Your task to perform on an android device: Open Chrome and go to settings Image 0: 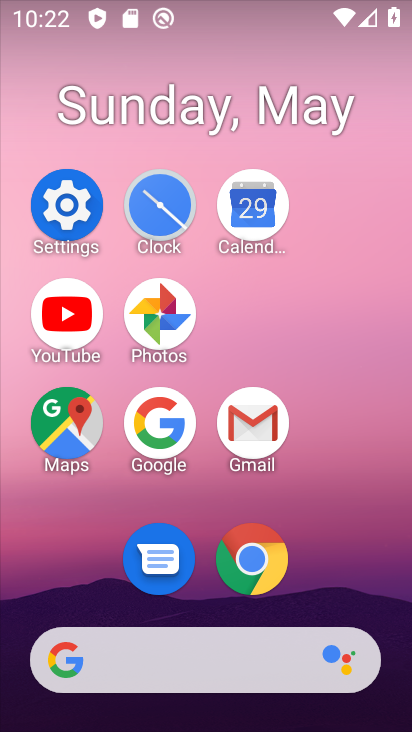
Step 0: click (250, 589)
Your task to perform on an android device: Open Chrome and go to settings Image 1: 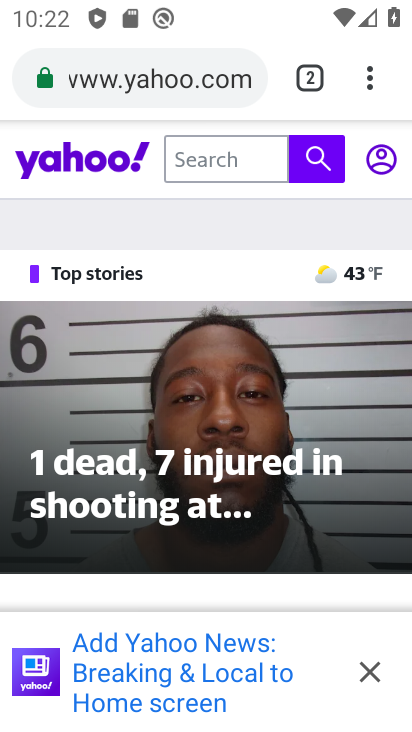
Step 1: click (379, 87)
Your task to perform on an android device: Open Chrome and go to settings Image 2: 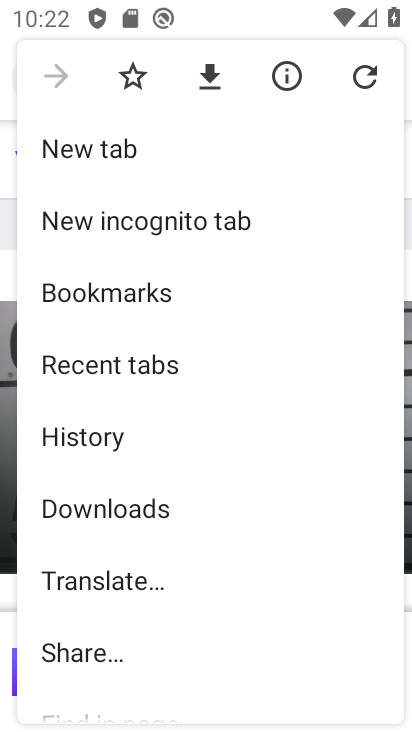
Step 2: drag from (82, 523) to (122, 160)
Your task to perform on an android device: Open Chrome and go to settings Image 3: 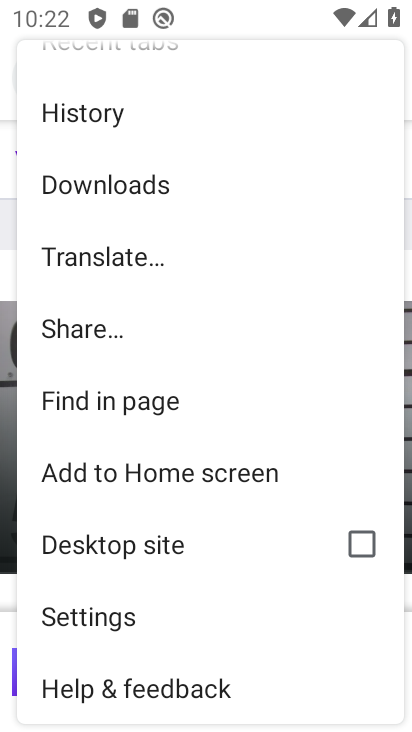
Step 3: click (113, 633)
Your task to perform on an android device: Open Chrome and go to settings Image 4: 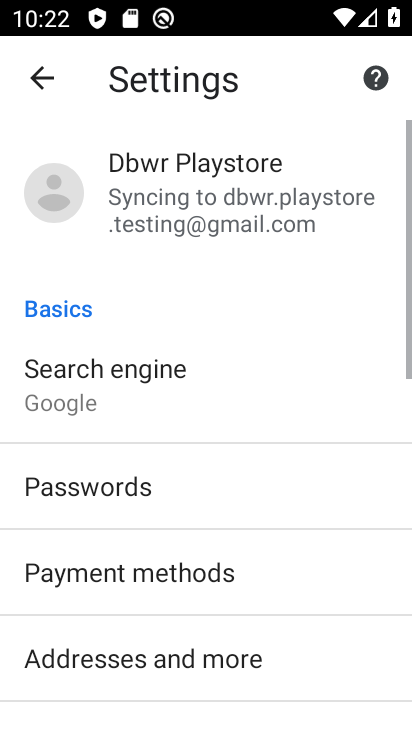
Step 4: task complete